Your task to perform on an android device: change timer sound Image 0: 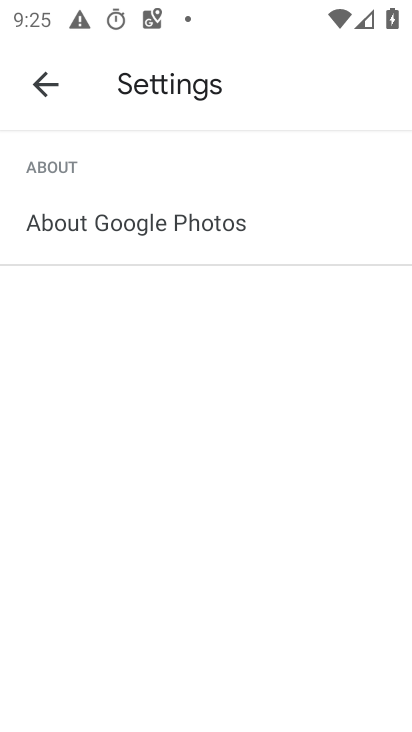
Step 0: press home button
Your task to perform on an android device: change timer sound Image 1: 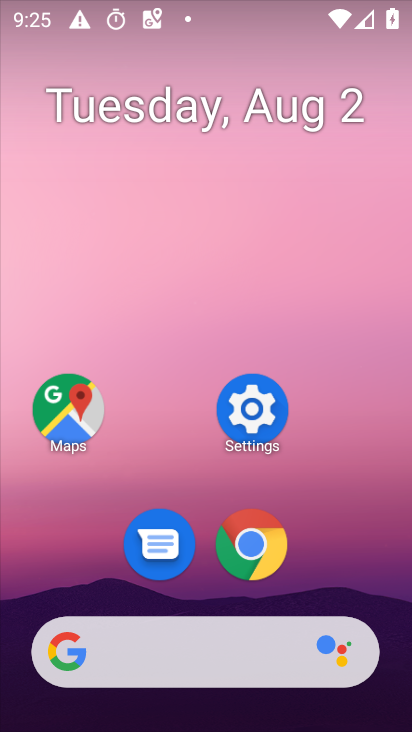
Step 1: drag from (217, 657) to (374, 23)
Your task to perform on an android device: change timer sound Image 2: 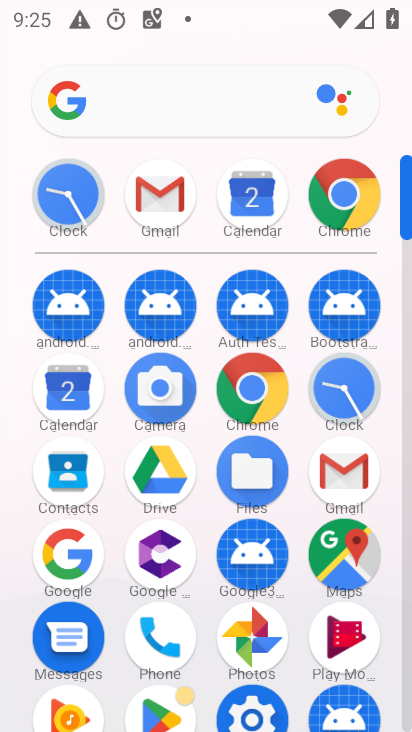
Step 2: drag from (288, 603) to (369, 288)
Your task to perform on an android device: change timer sound Image 3: 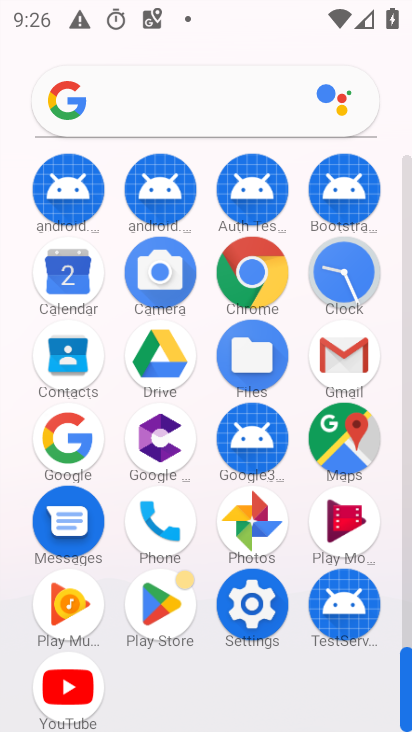
Step 3: click (341, 269)
Your task to perform on an android device: change timer sound Image 4: 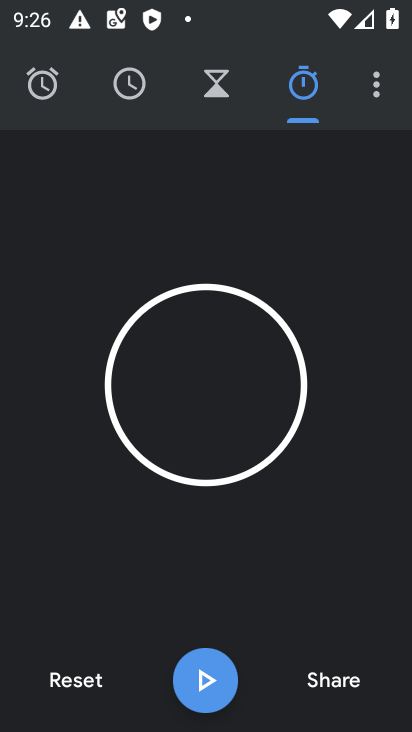
Step 4: click (383, 92)
Your task to perform on an android device: change timer sound Image 5: 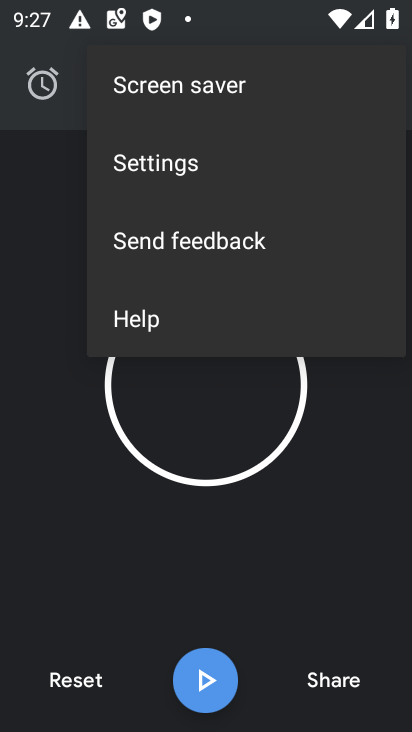
Step 5: click (175, 169)
Your task to perform on an android device: change timer sound Image 6: 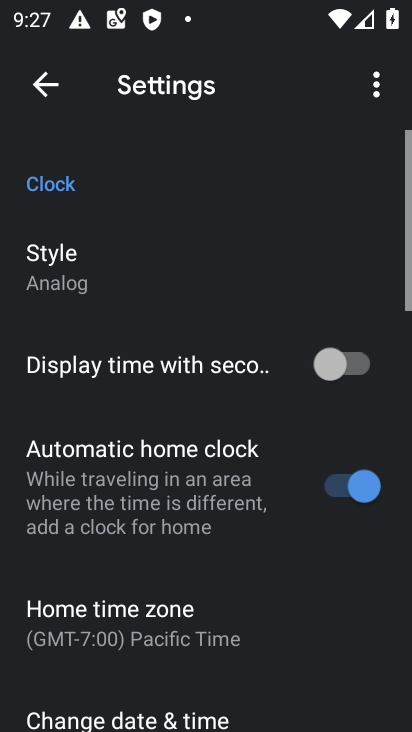
Step 6: drag from (222, 656) to (336, 136)
Your task to perform on an android device: change timer sound Image 7: 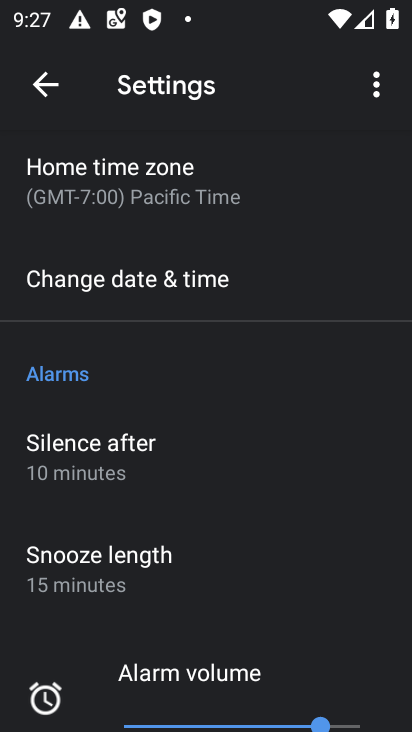
Step 7: drag from (181, 594) to (308, 210)
Your task to perform on an android device: change timer sound Image 8: 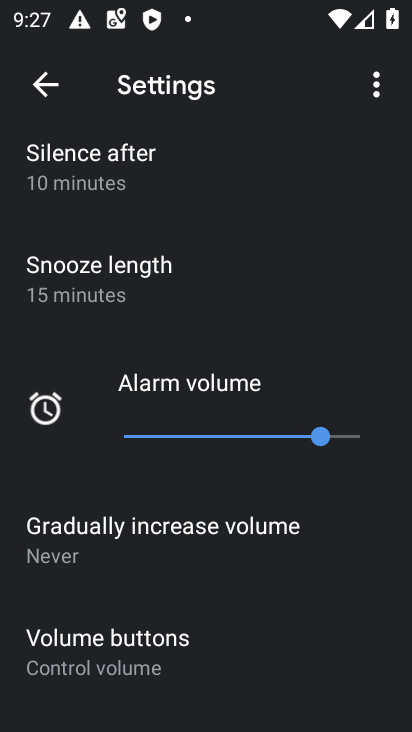
Step 8: drag from (271, 264) to (285, 647)
Your task to perform on an android device: change timer sound Image 9: 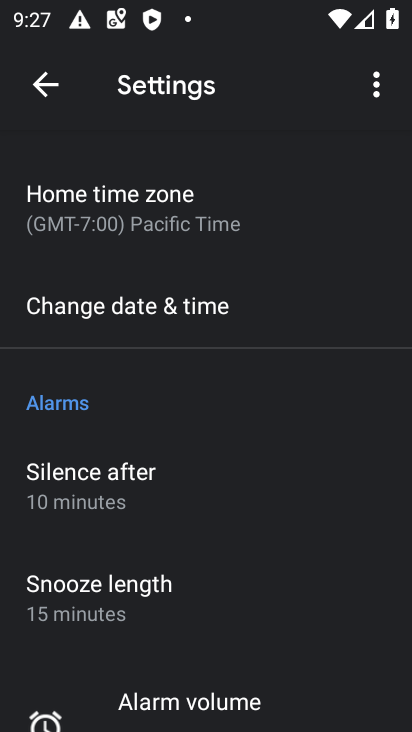
Step 9: drag from (300, 280) to (294, 528)
Your task to perform on an android device: change timer sound Image 10: 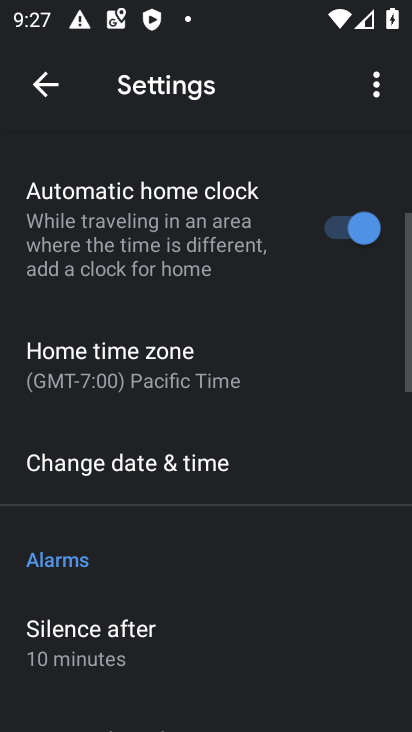
Step 10: drag from (219, 626) to (269, 249)
Your task to perform on an android device: change timer sound Image 11: 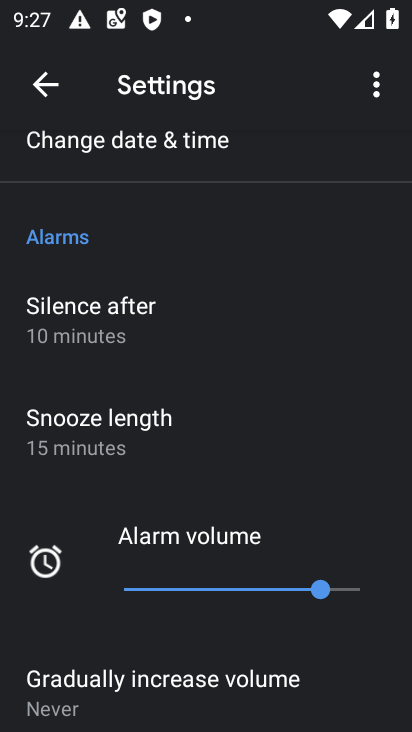
Step 11: drag from (106, 493) to (254, 135)
Your task to perform on an android device: change timer sound Image 12: 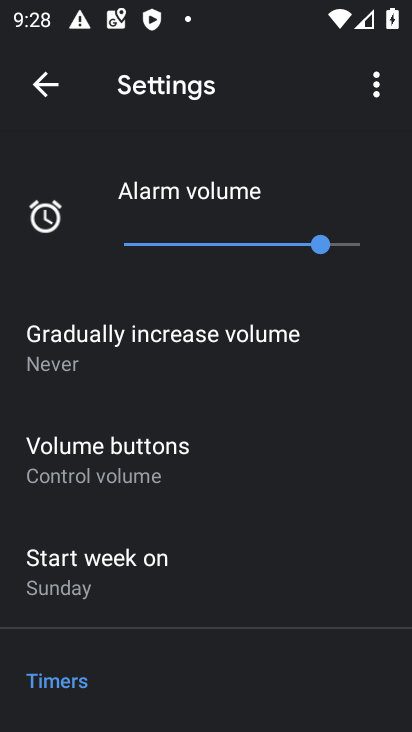
Step 12: drag from (140, 669) to (278, 317)
Your task to perform on an android device: change timer sound Image 13: 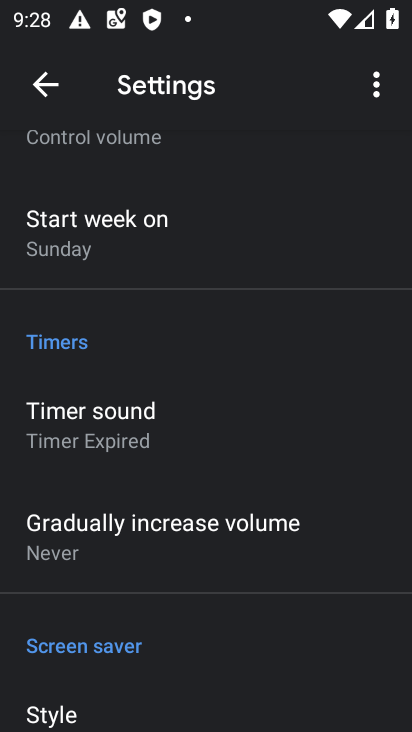
Step 13: click (119, 442)
Your task to perform on an android device: change timer sound Image 14: 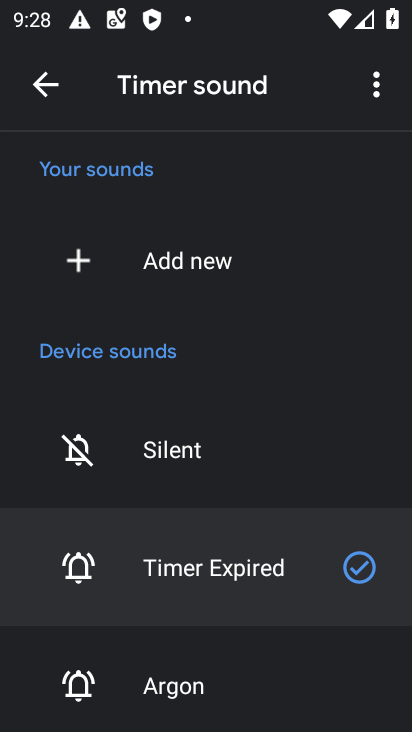
Step 14: click (179, 691)
Your task to perform on an android device: change timer sound Image 15: 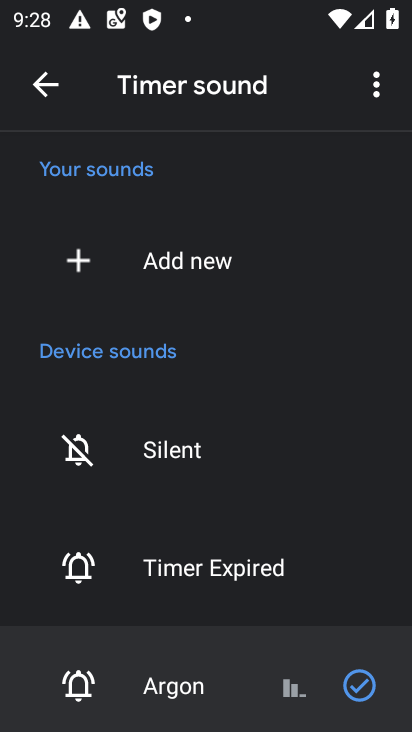
Step 15: task complete